Your task to perform on an android device: Search for Italian restaurants on Maps Image 0: 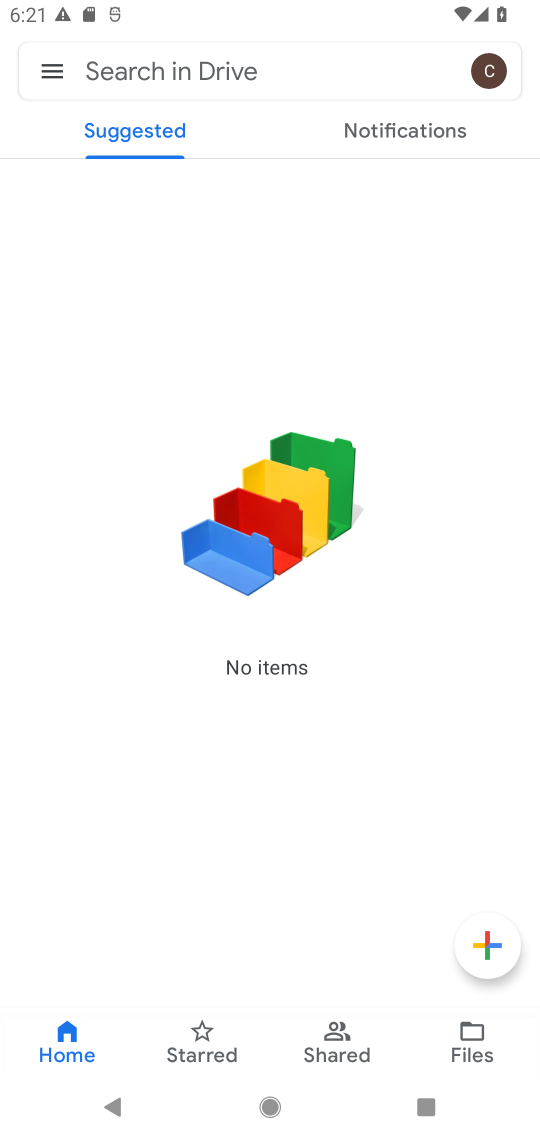
Step 0: press home button
Your task to perform on an android device: Search for Italian restaurants on Maps Image 1: 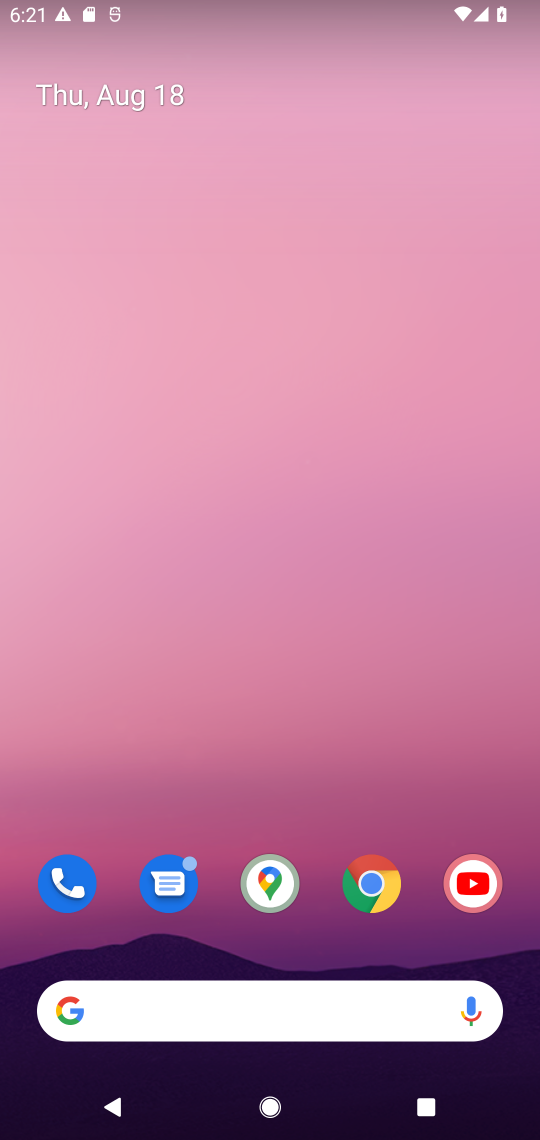
Step 1: click (122, 992)
Your task to perform on an android device: Search for Italian restaurants on Maps Image 2: 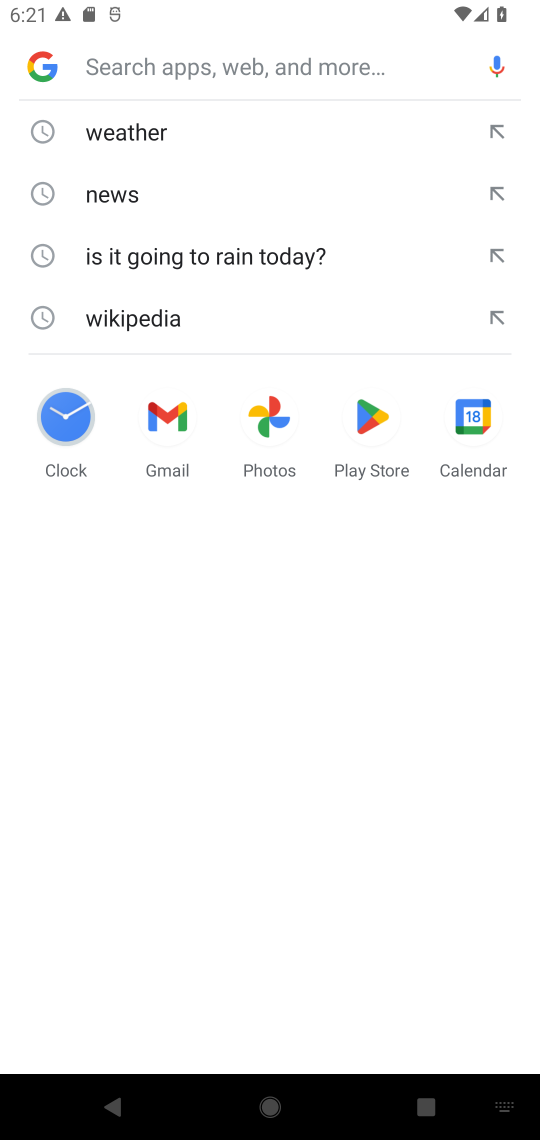
Step 2: press home button
Your task to perform on an android device: Search for Italian restaurants on Maps Image 3: 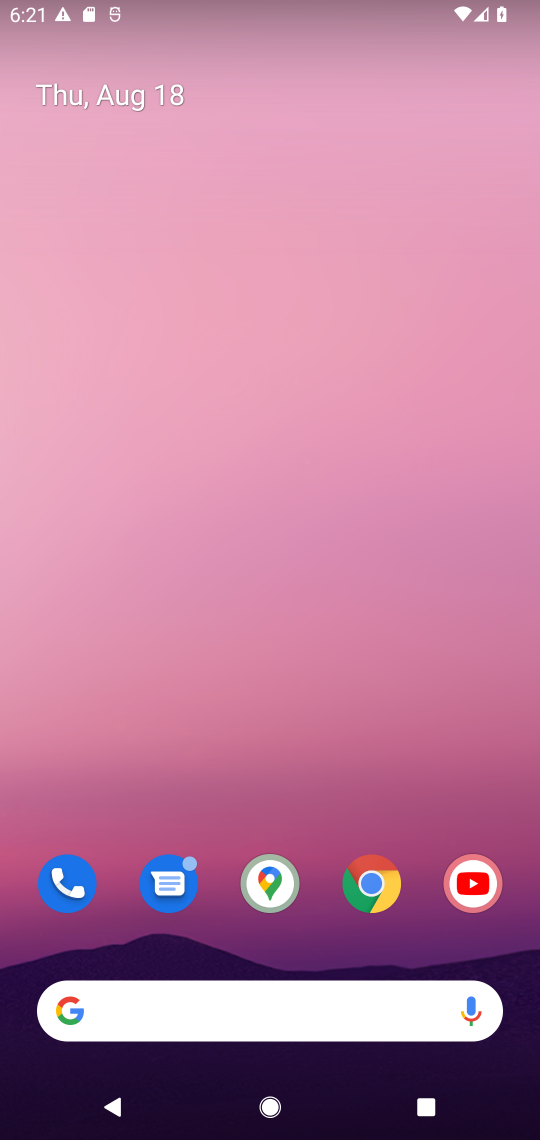
Step 3: click (279, 876)
Your task to perform on an android device: Search for Italian restaurants on Maps Image 4: 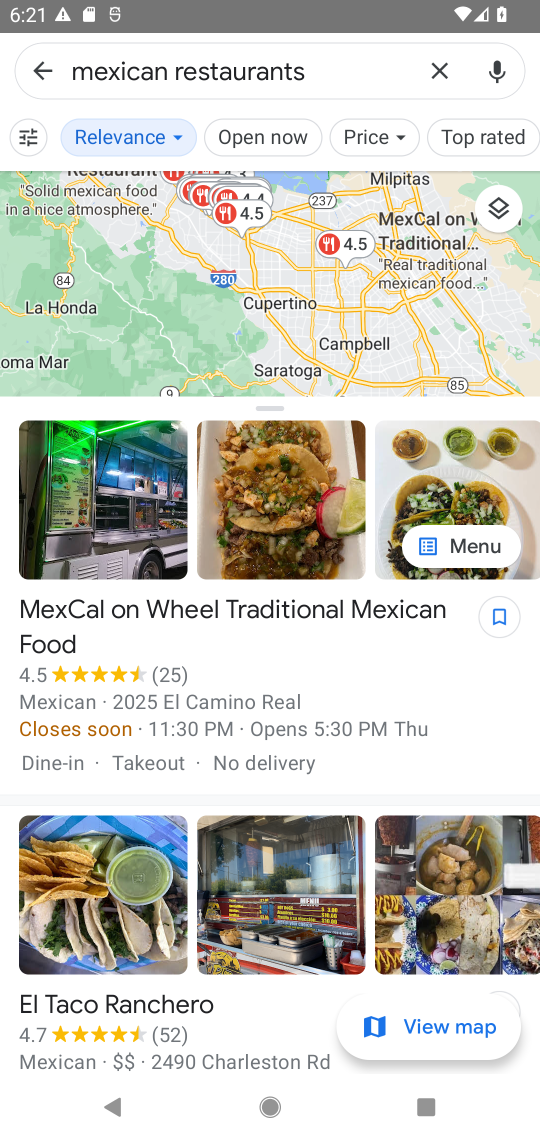
Step 4: click (32, 69)
Your task to perform on an android device: Search for Italian restaurants on Maps Image 5: 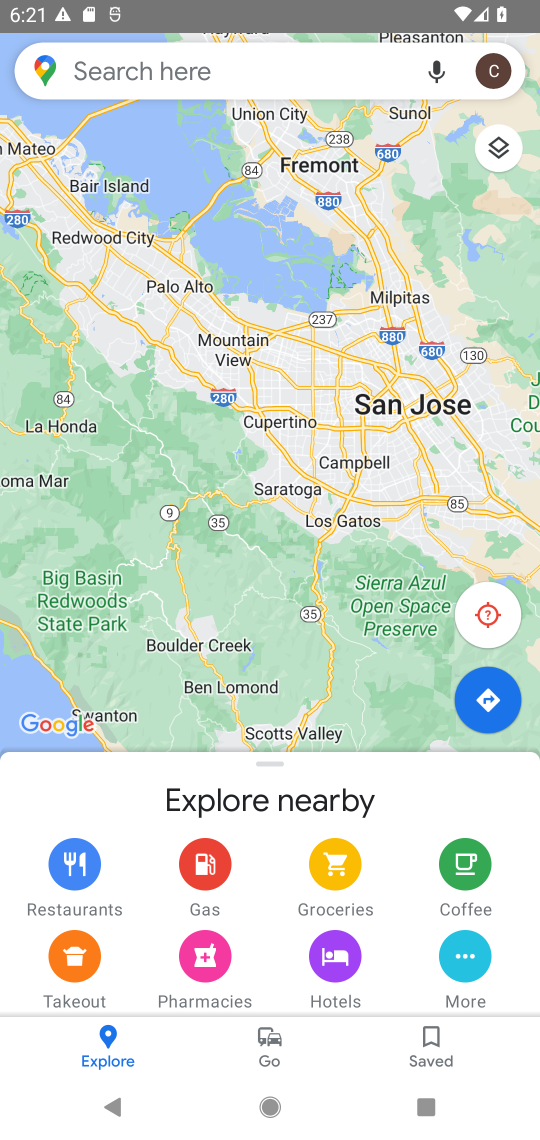
Step 5: click (117, 69)
Your task to perform on an android device: Search for Italian restaurants on Maps Image 6: 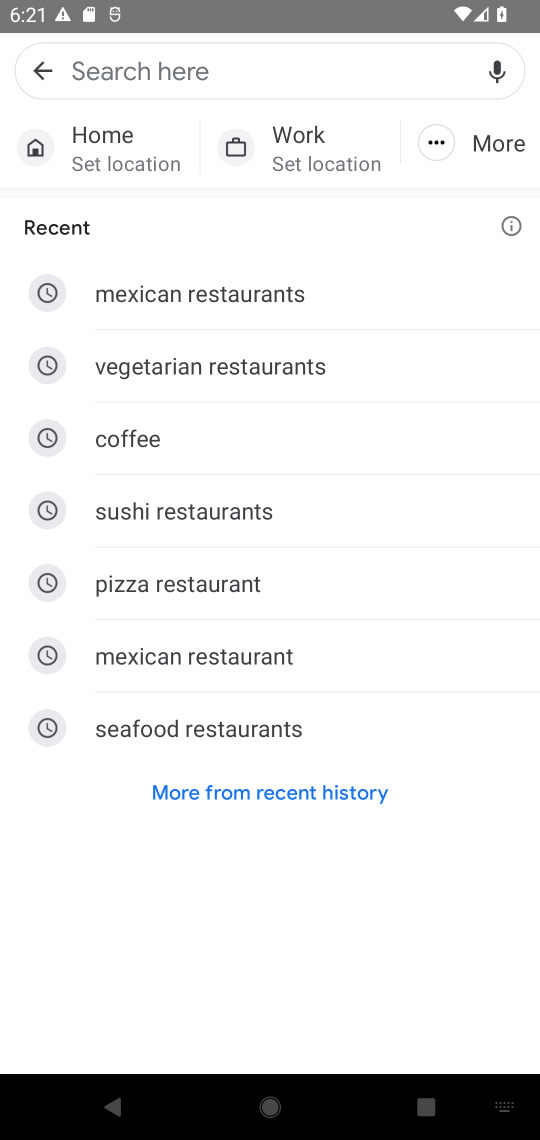
Step 6: type "Italian restaurants"
Your task to perform on an android device: Search for Italian restaurants on Maps Image 7: 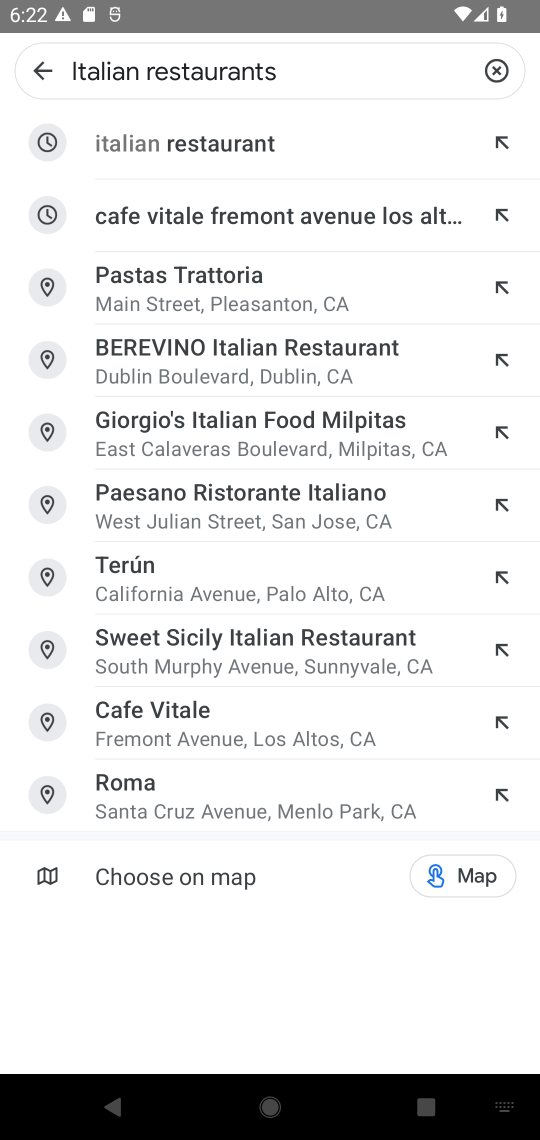
Step 7: click (150, 137)
Your task to perform on an android device: Search for Italian restaurants on Maps Image 8: 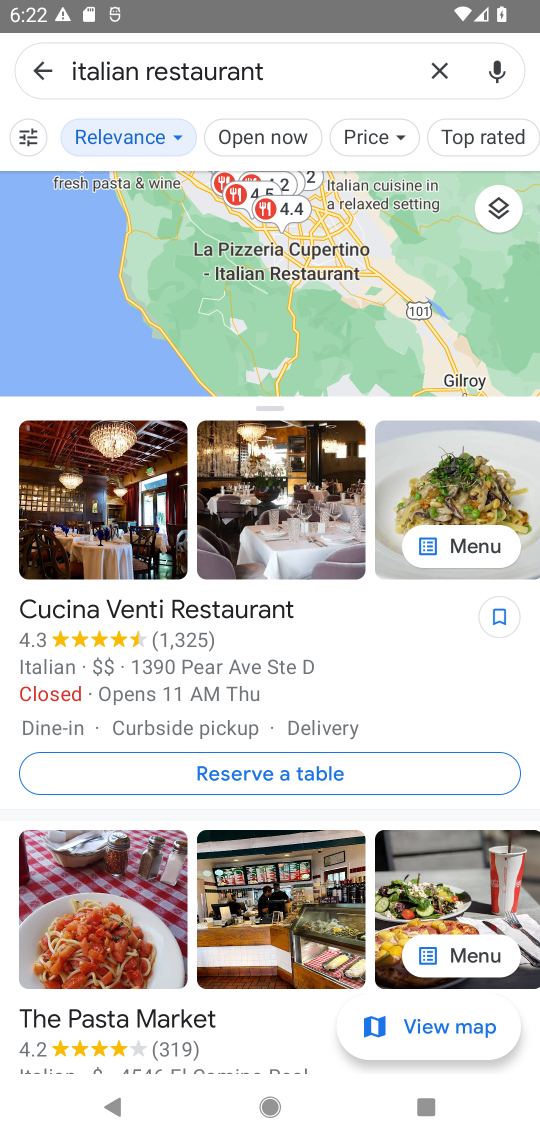
Step 8: task complete